Your task to perform on an android device: What's on my calendar today? Image 0: 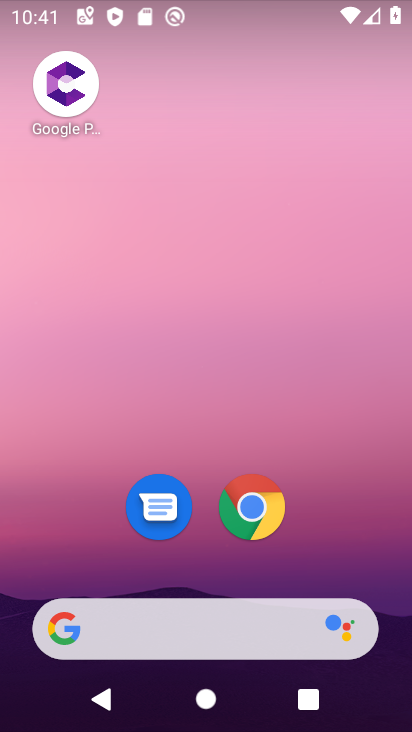
Step 0: drag from (353, 582) to (411, 22)
Your task to perform on an android device: What's on my calendar today? Image 1: 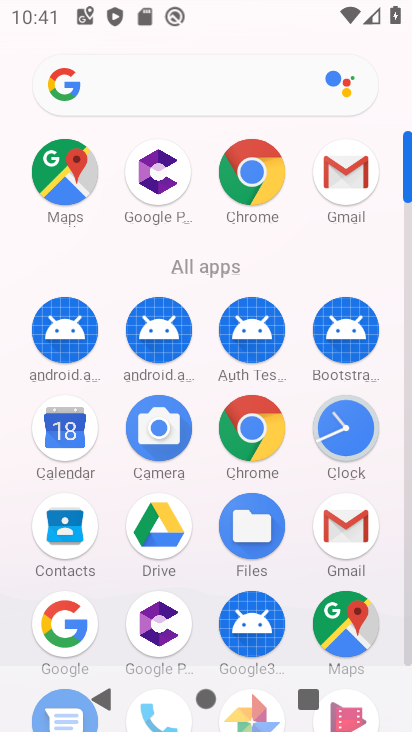
Step 1: click (59, 435)
Your task to perform on an android device: What's on my calendar today? Image 2: 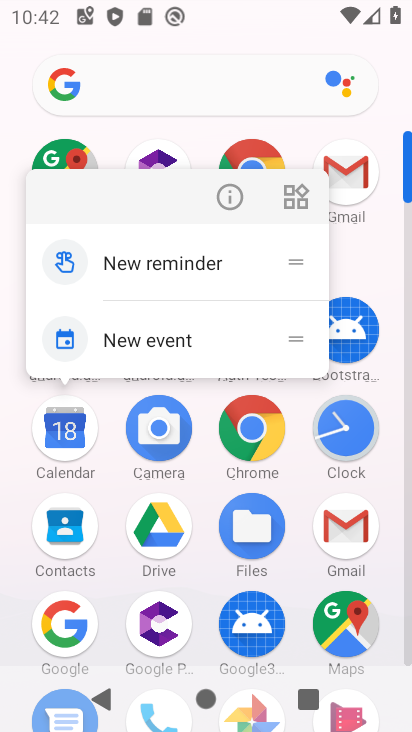
Step 2: click (59, 435)
Your task to perform on an android device: What's on my calendar today? Image 3: 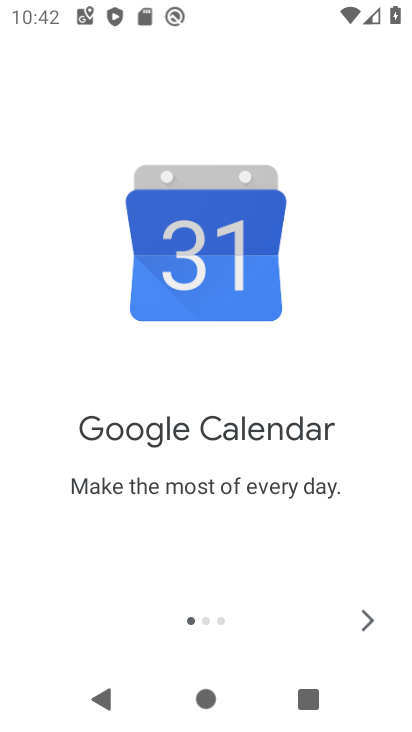
Step 3: click (361, 622)
Your task to perform on an android device: What's on my calendar today? Image 4: 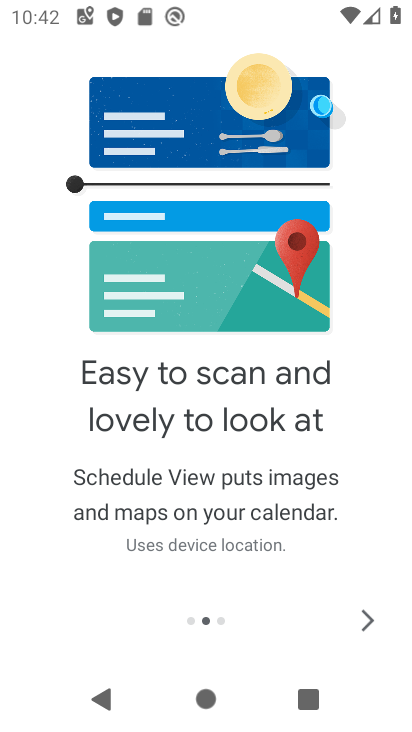
Step 4: click (362, 620)
Your task to perform on an android device: What's on my calendar today? Image 5: 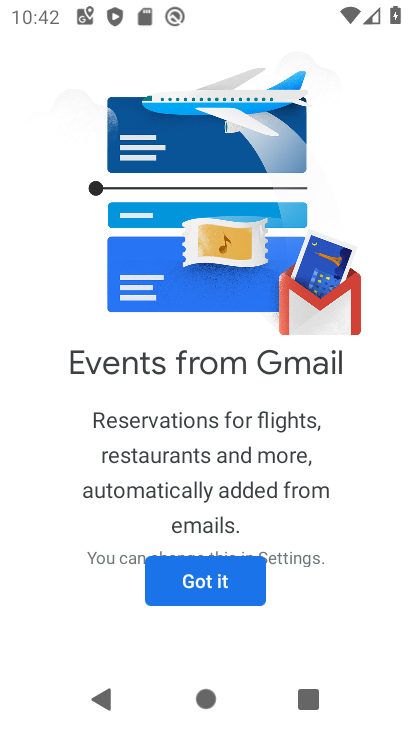
Step 5: click (213, 586)
Your task to perform on an android device: What's on my calendar today? Image 6: 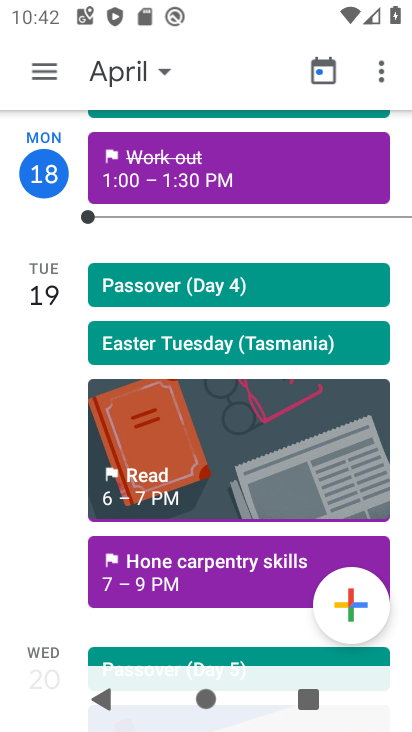
Step 6: click (128, 73)
Your task to perform on an android device: What's on my calendar today? Image 7: 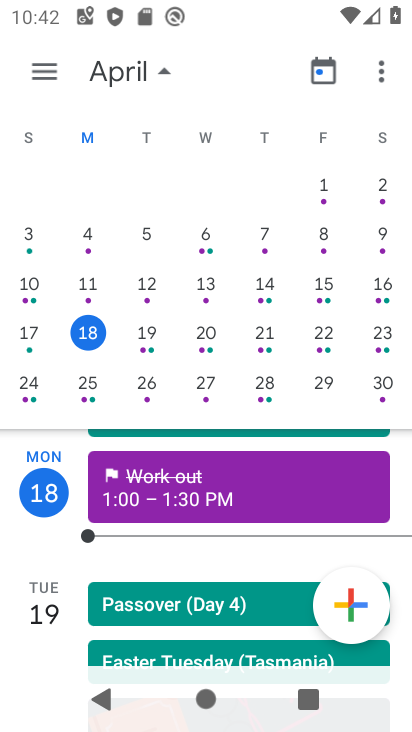
Step 7: click (101, 333)
Your task to perform on an android device: What's on my calendar today? Image 8: 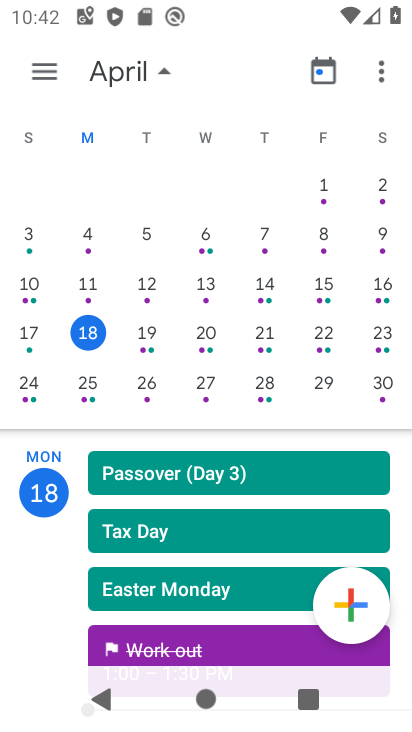
Step 8: task complete